Your task to perform on an android device: turn off translation in the chrome app Image 0: 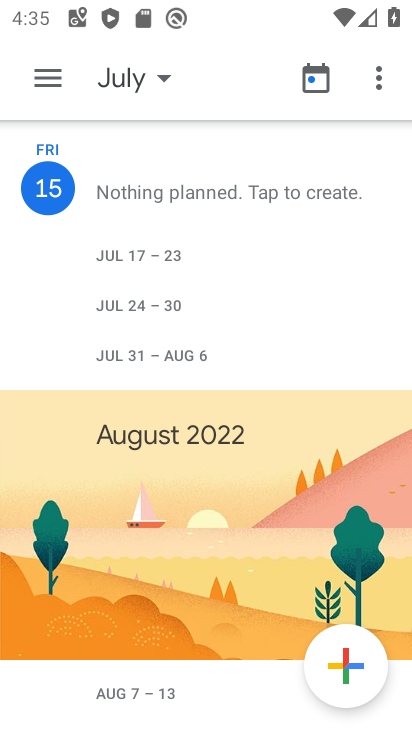
Step 0: press back button
Your task to perform on an android device: turn off translation in the chrome app Image 1: 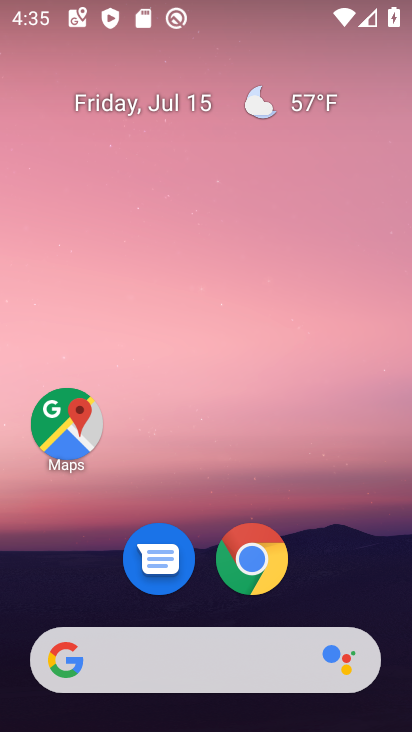
Step 1: click (224, 565)
Your task to perform on an android device: turn off translation in the chrome app Image 2: 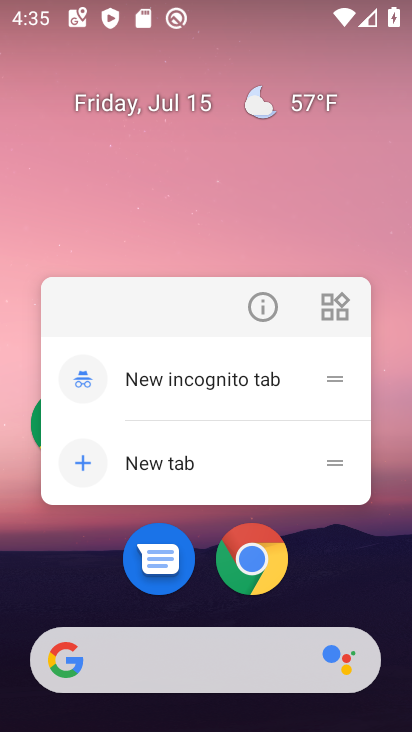
Step 2: click (227, 550)
Your task to perform on an android device: turn off translation in the chrome app Image 3: 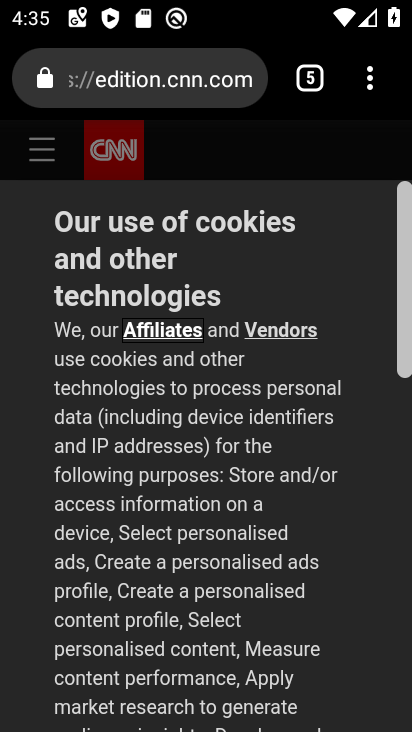
Step 3: drag from (371, 86) to (131, 622)
Your task to perform on an android device: turn off translation in the chrome app Image 4: 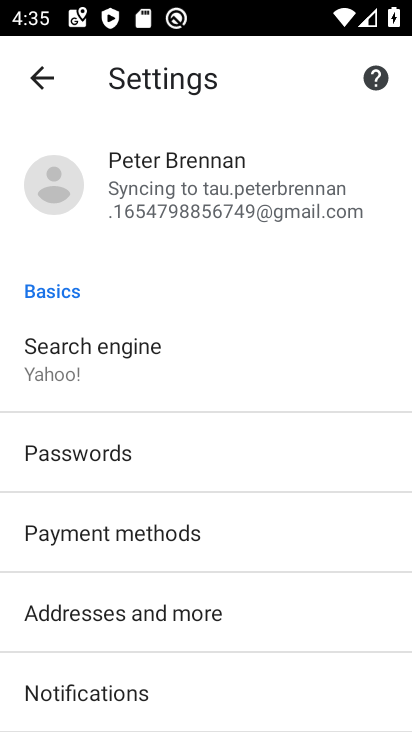
Step 4: drag from (134, 656) to (176, 150)
Your task to perform on an android device: turn off translation in the chrome app Image 5: 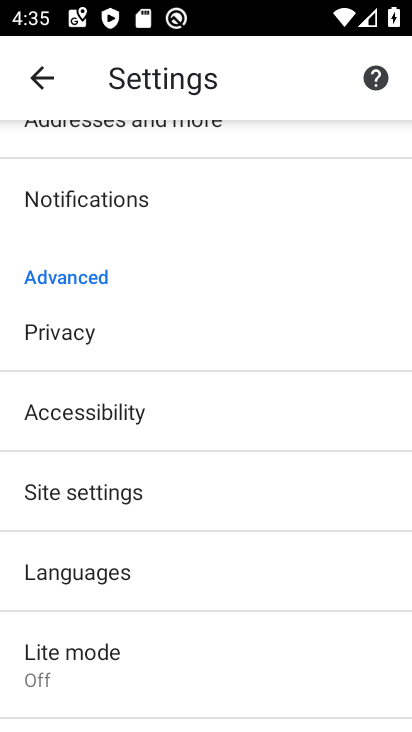
Step 5: click (77, 574)
Your task to perform on an android device: turn off translation in the chrome app Image 6: 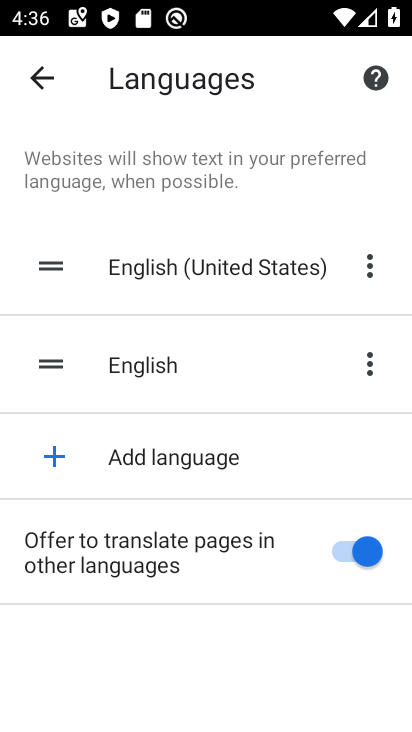
Step 6: click (356, 551)
Your task to perform on an android device: turn off translation in the chrome app Image 7: 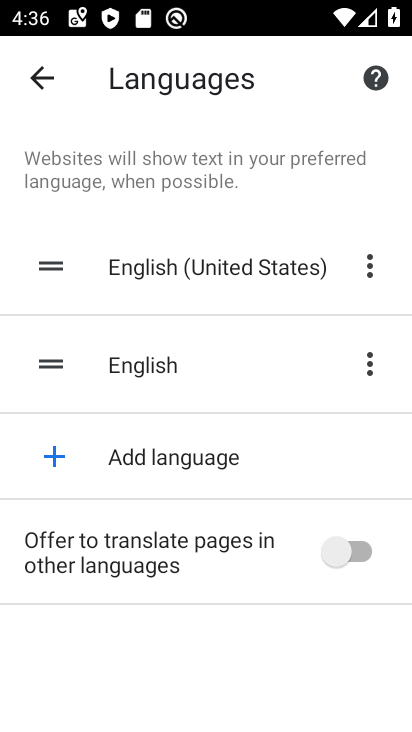
Step 7: task complete